Your task to perform on an android device: turn on priority inbox in the gmail app Image 0: 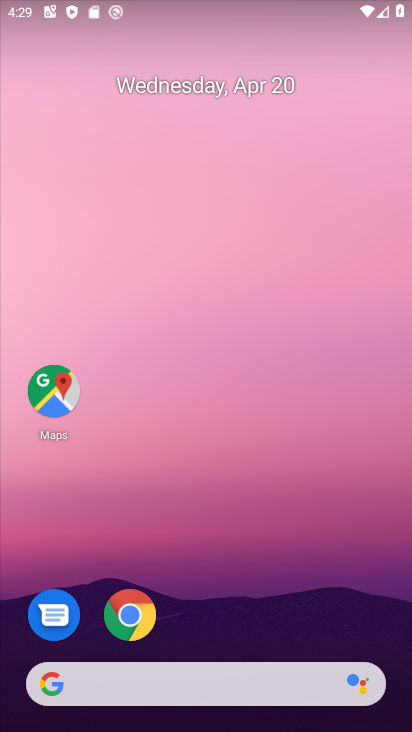
Step 0: drag from (179, 617) to (318, 42)
Your task to perform on an android device: turn on priority inbox in the gmail app Image 1: 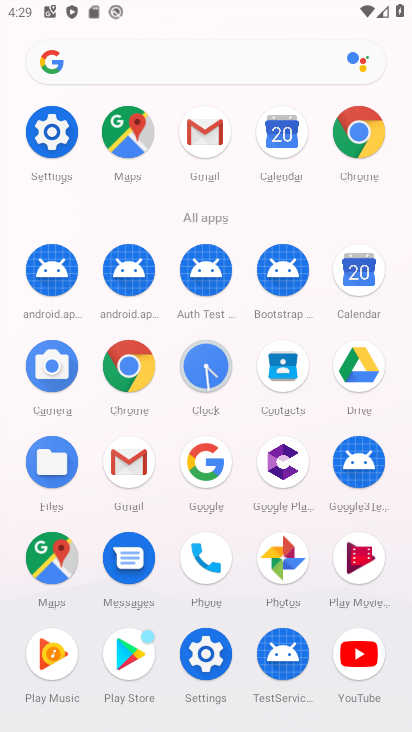
Step 1: click (141, 465)
Your task to perform on an android device: turn on priority inbox in the gmail app Image 2: 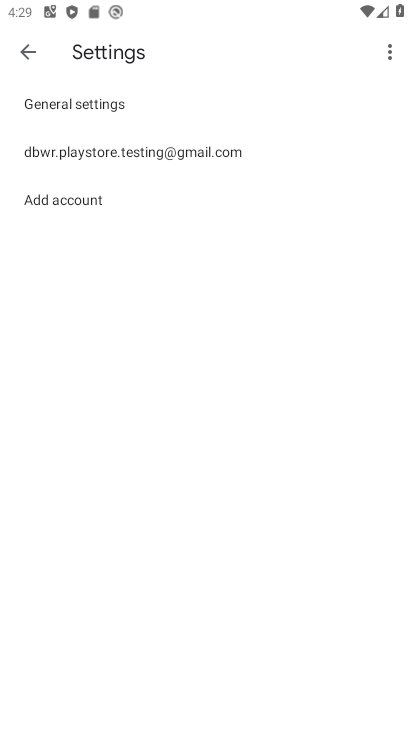
Step 2: click (104, 151)
Your task to perform on an android device: turn on priority inbox in the gmail app Image 3: 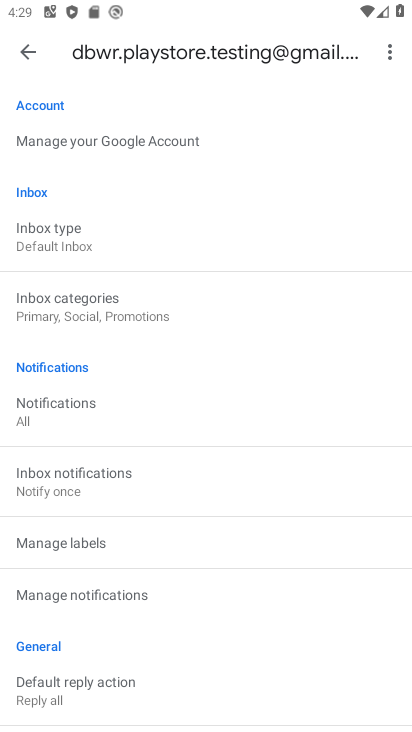
Step 3: click (76, 228)
Your task to perform on an android device: turn on priority inbox in the gmail app Image 4: 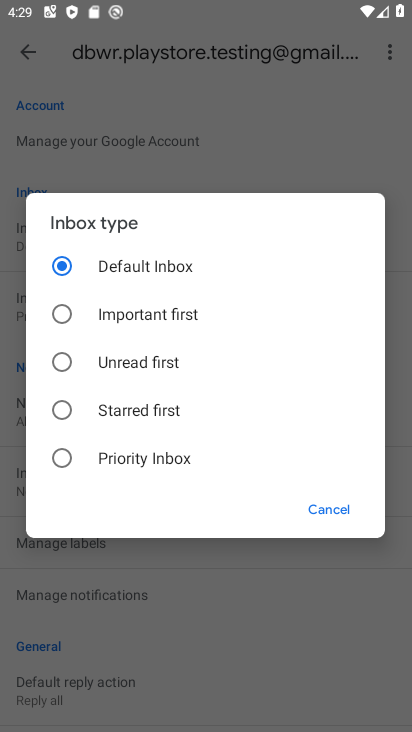
Step 4: click (80, 454)
Your task to perform on an android device: turn on priority inbox in the gmail app Image 5: 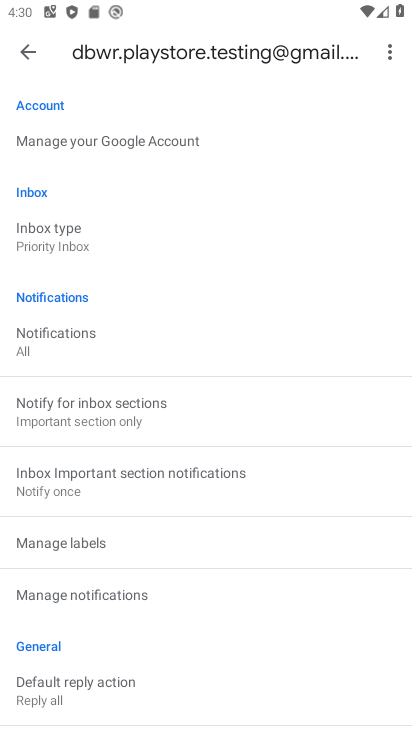
Step 5: task complete